Your task to perform on an android device: toggle notification dots Image 0: 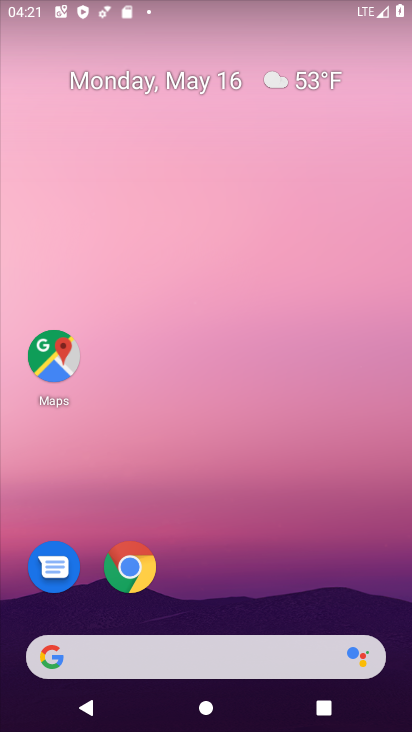
Step 0: drag from (252, 671) to (237, 22)
Your task to perform on an android device: toggle notification dots Image 1: 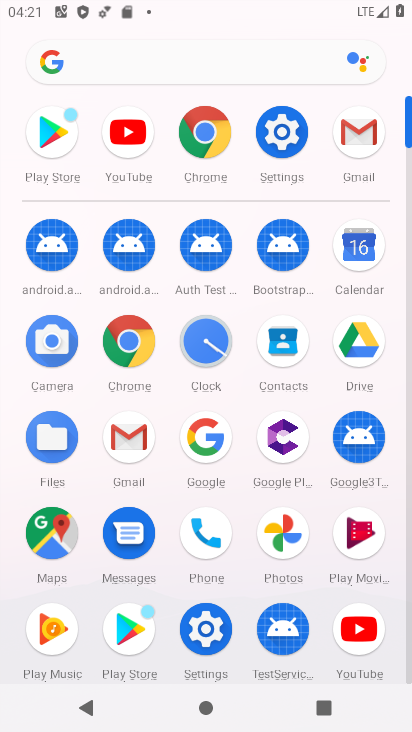
Step 1: click (288, 134)
Your task to perform on an android device: toggle notification dots Image 2: 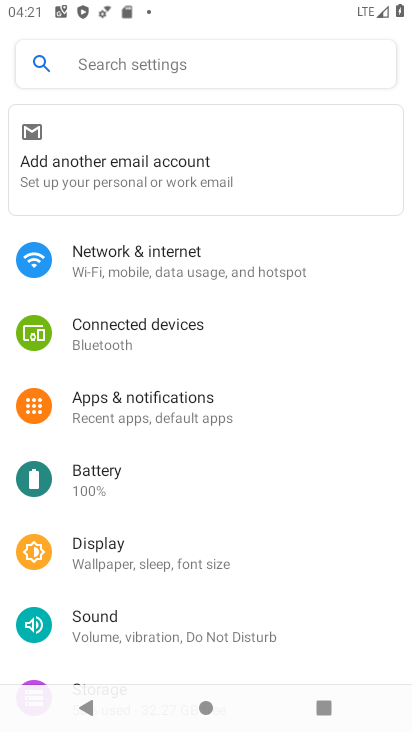
Step 2: click (178, 399)
Your task to perform on an android device: toggle notification dots Image 3: 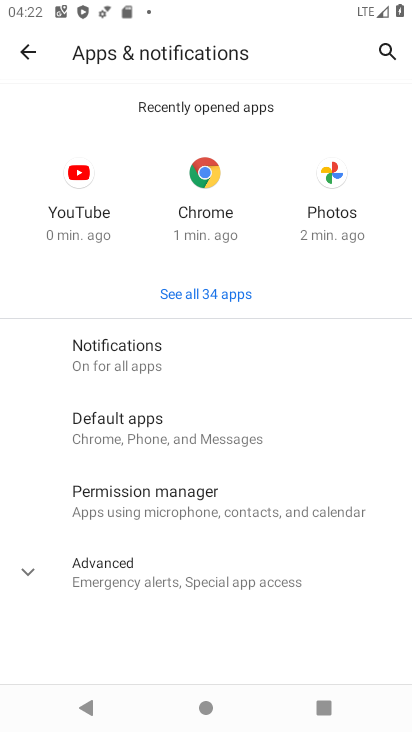
Step 3: click (171, 366)
Your task to perform on an android device: toggle notification dots Image 4: 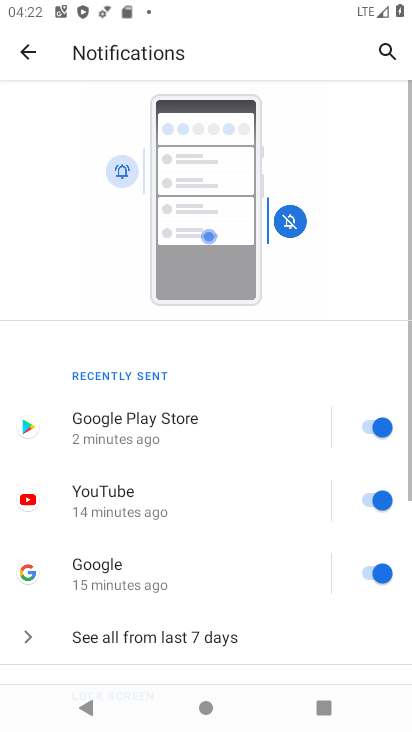
Step 4: drag from (263, 655) to (280, 171)
Your task to perform on an android device: toggle notification dots Image 5: 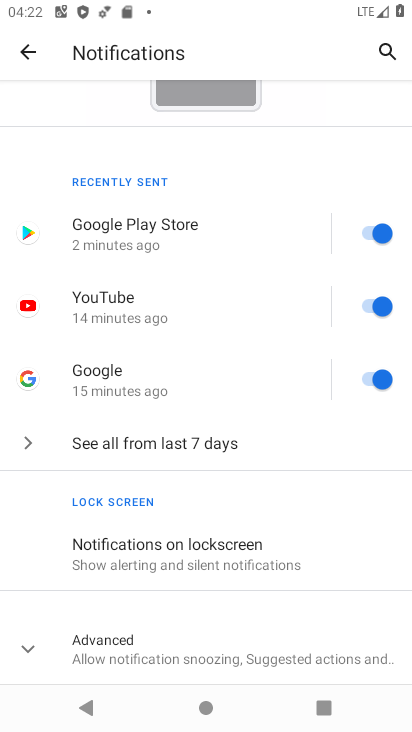
Step 5: click (255, 658)
Your task to perform on an android device: toggle notification dots Image 6: 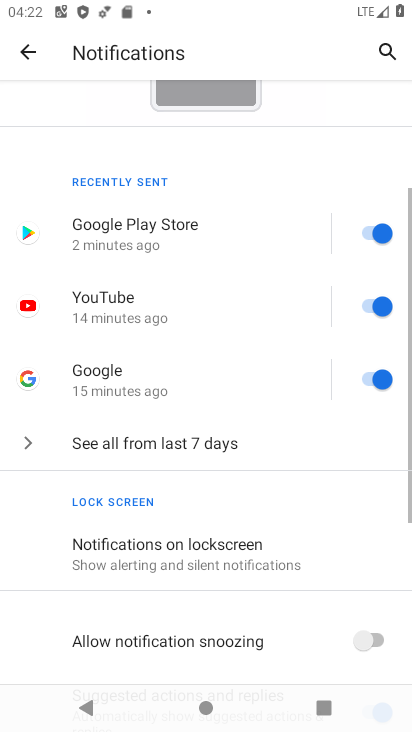
Step 6: drag from (257, 642) to (261, 214)
Your task to perform on an android device: toggle notification dots Image 7: 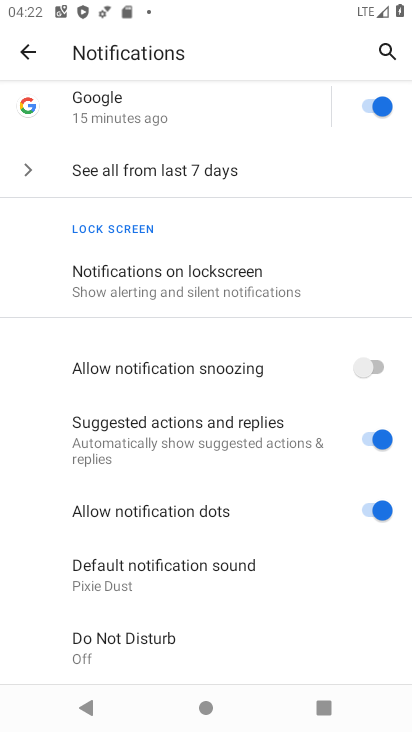
Step 7: click (372, 507)
Your task to perform on an android device: toggle notification dots Image 8: 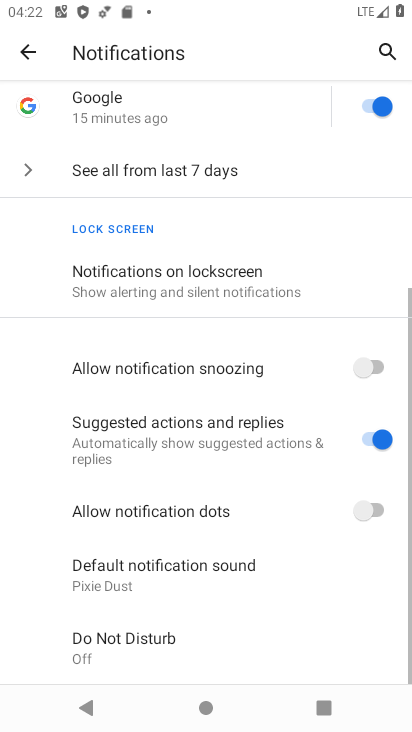
Step 8: task complete